Your task to perform on an android device: open sync settings in chrome Image 0: 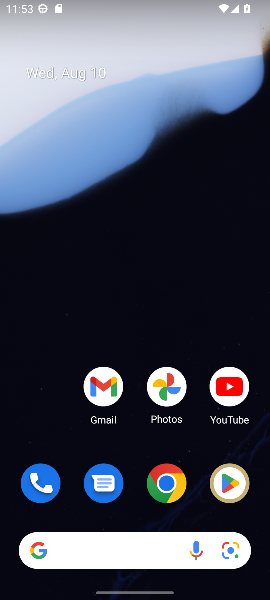
Step 0: click (94, 149)
Your task to perform on an android device: open sync settings in chrome Image 1: 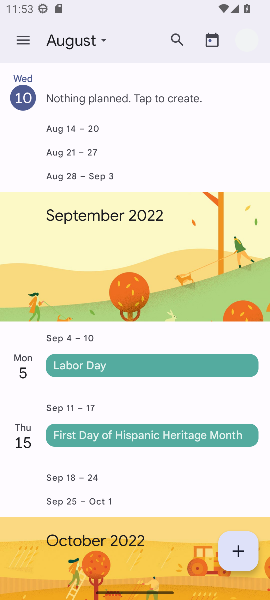
Step 1: press home button
Your task to perform on an android device: open sync settings in chrome Image 2: 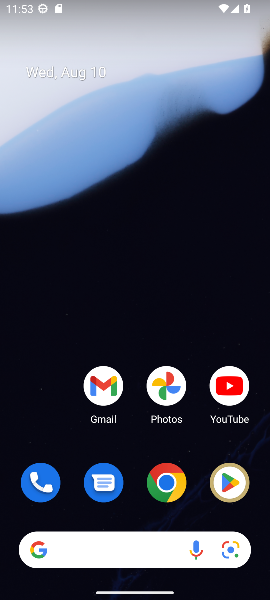
Step 2: click (164, 494)
Your task to perform on an android device: open sync settings in chrome Image 3: 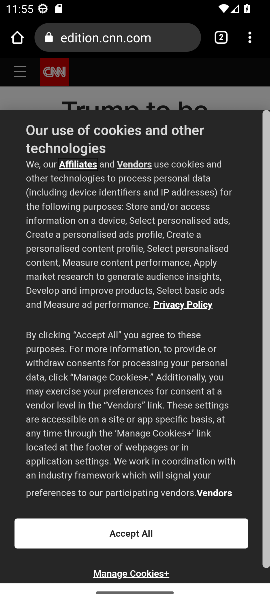
Step 3: click (153, 527)
Your task to perform on an android device: open sync settings in chrome Image 4: 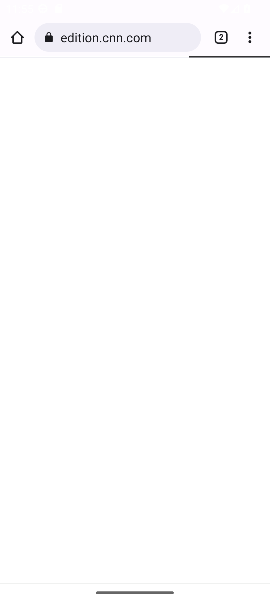
Step 4: task complete